Your task to perform on an android device: Open Chrome and go to settings Image 0: 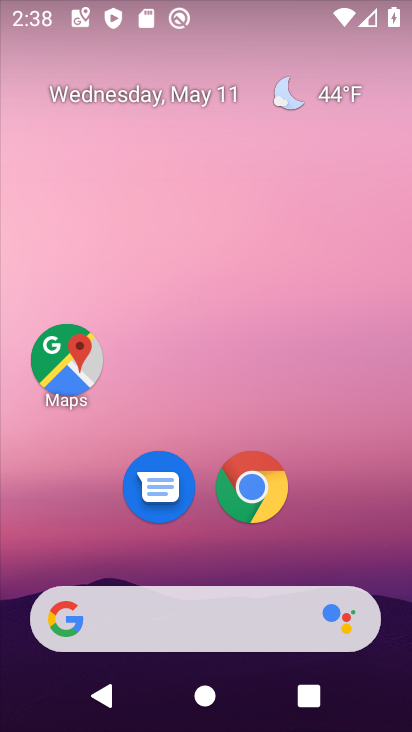
Step 0: click (240, 484)
Your task to perform on an android device: Open Chrome and go to settings Image 1: 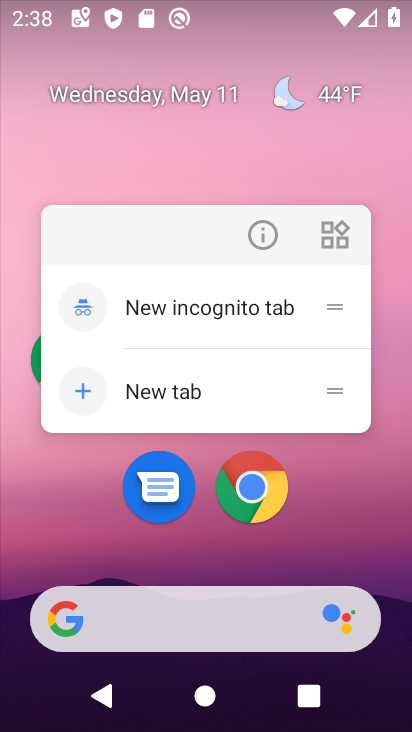
Step 1: click (254, 488)
Your task to perform on an android device: Open Chrome and go to settings Image 2: 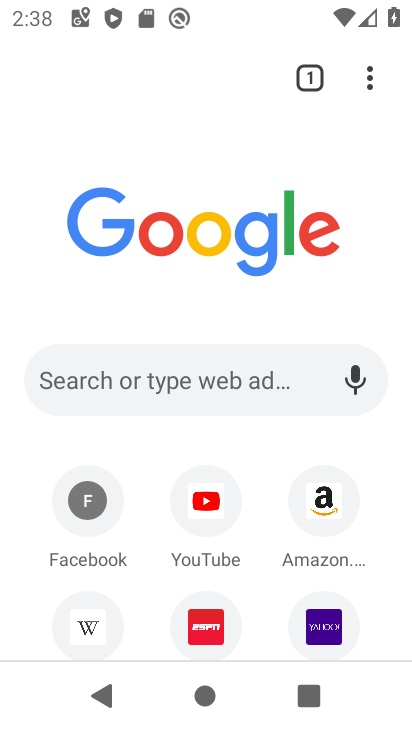
Step 2: click (372, 75)
Your task to perform on an android device: Open Chrome and go to settings Image 3: 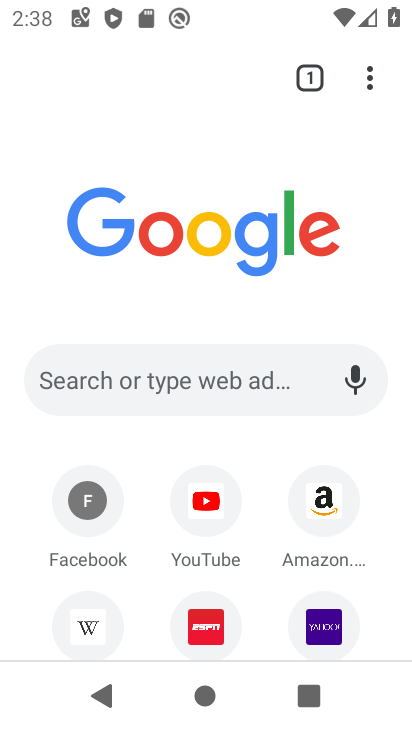
Step 3: task complete